Your task to perform on an android device: Add "acer predator" to the cart on target.com Image 0: 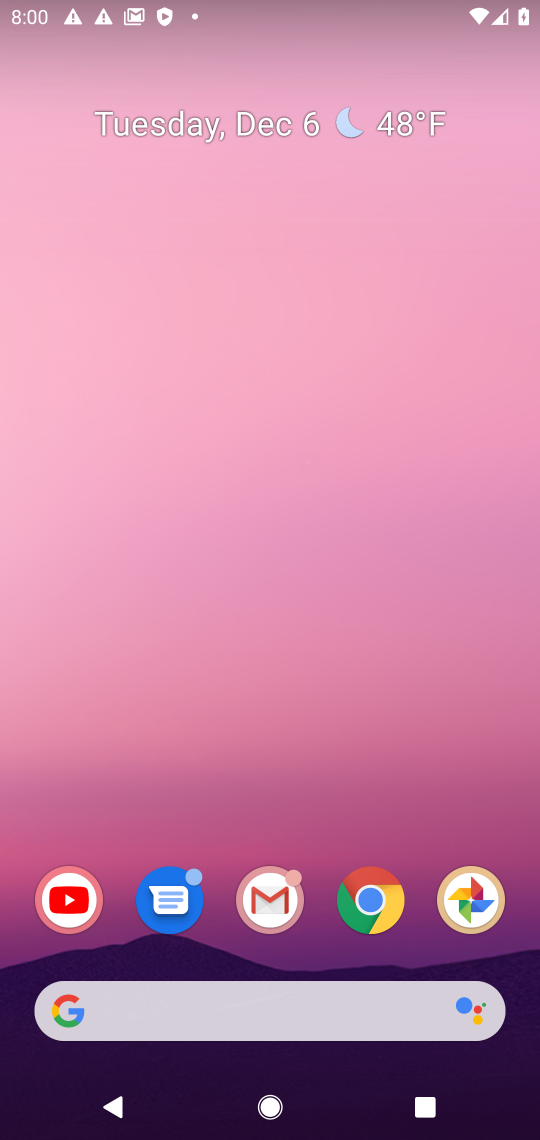
Step 0: click (292, 404)
Your task to perform on an android device: Add "acer predator" to the cart on target.com Image 1: 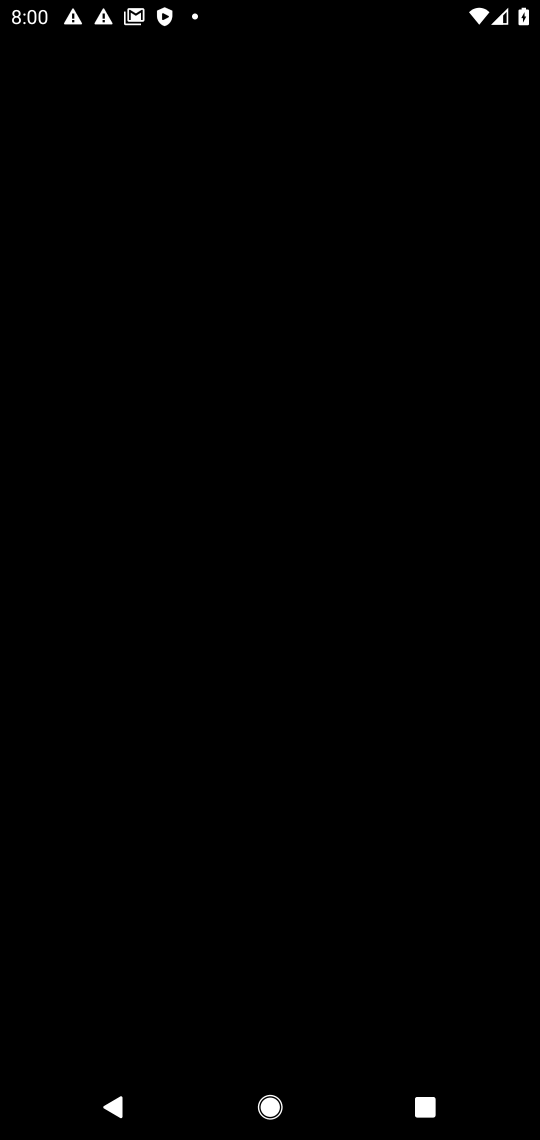
Step 1: press home button
Your task to perform on an android device: Add "acer predator" to the cart on target.com Image 2: 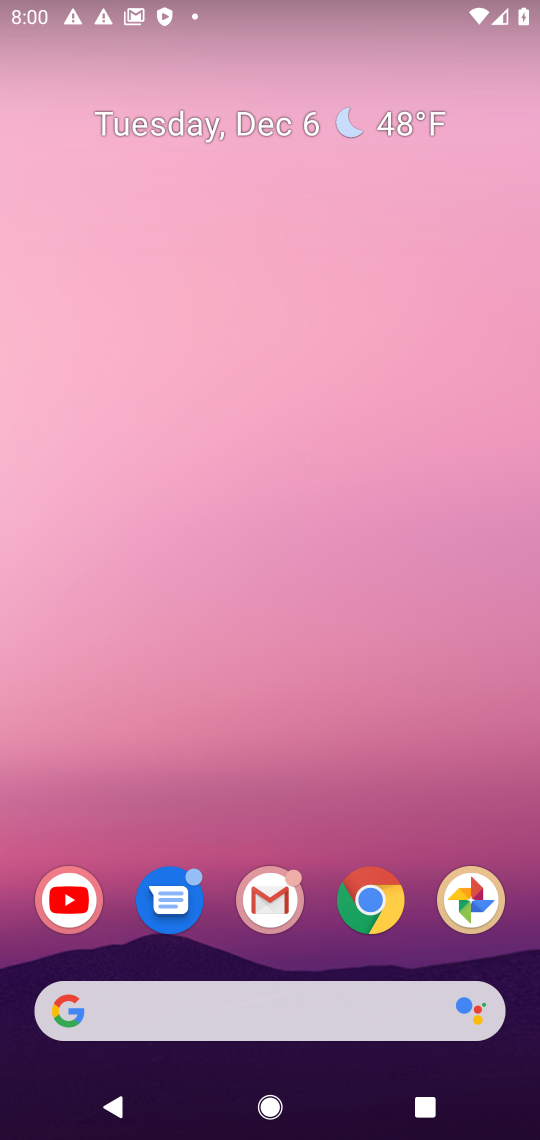
Step 2: drag from (310, 971) to (275, 417)
Your task to perform on an android device: Add "acer predator" to the cart on target.com Image 3: 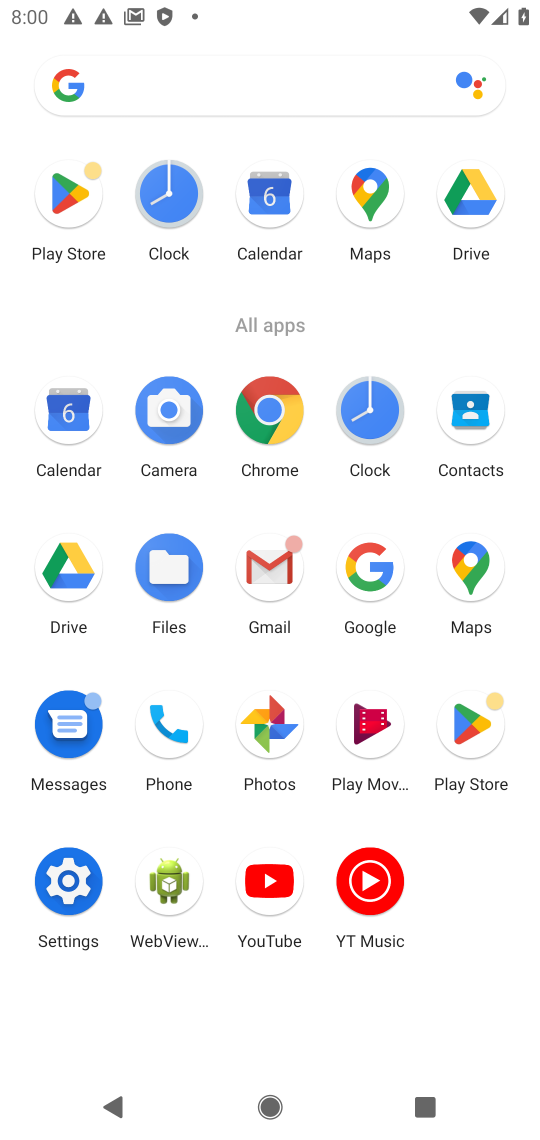
Step 3: click (360, 575)
Your task to perform on an android device: Add "acer predator" to the cart on target.com Image 4: 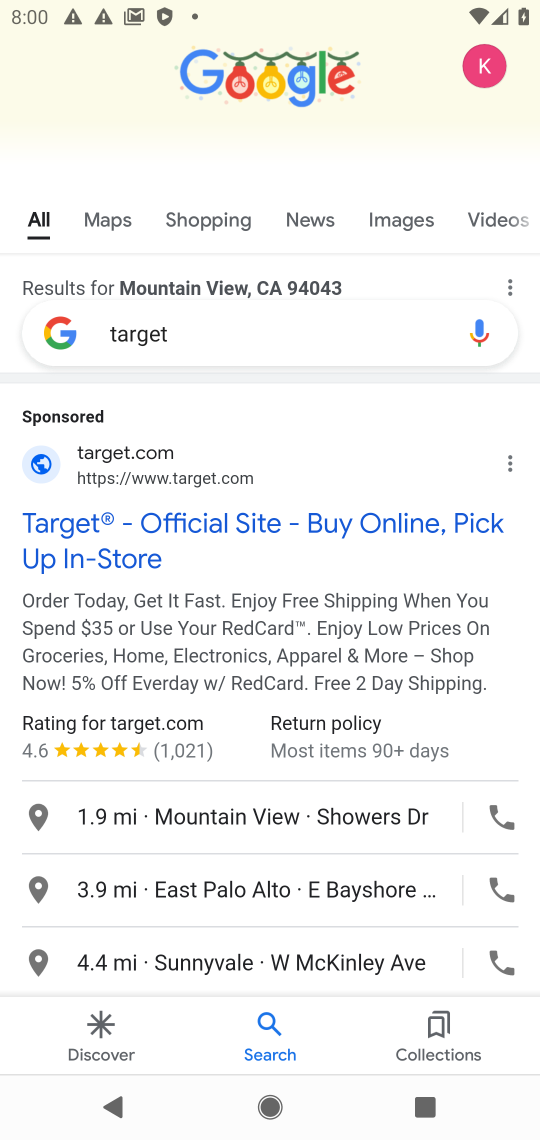
Step 4: click (153, 525)
Your task to perform on an android device: Add "acer predator" to the cart on target.com Image 5: 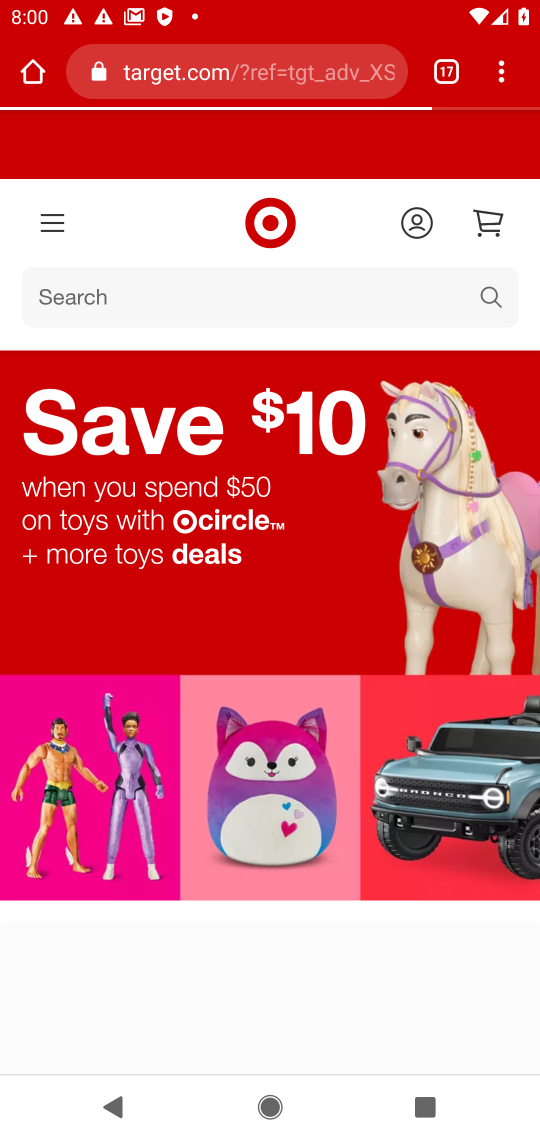
Step 5: click (137, 300)
Your task to perform on an android device: Add "acer predator" to the cart on target.com Image 6: 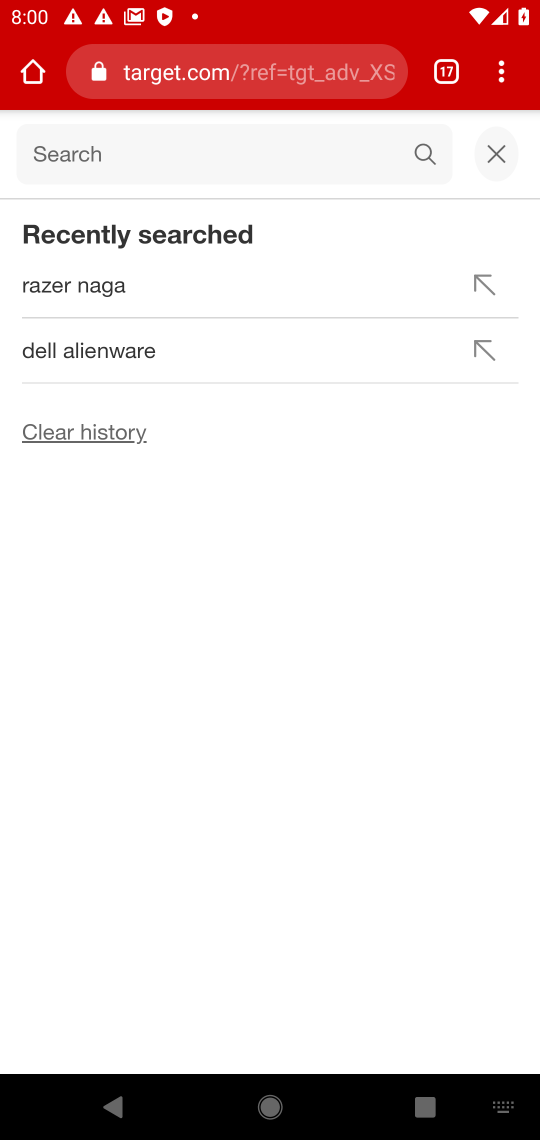
Step 6: type "acer predator"
Your task to perform on an android device: Add "acer predator" to the cart on target.com Image 7: 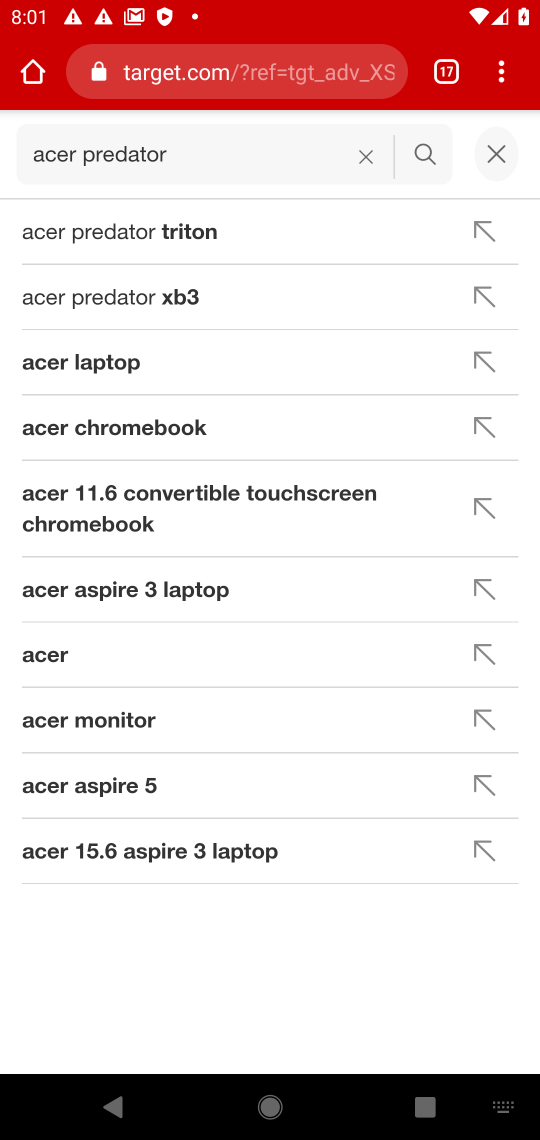
Step 7: click (117, 221)
Your task to perform on an android device: Add "acer predator" to the cart on target.com Image 8: 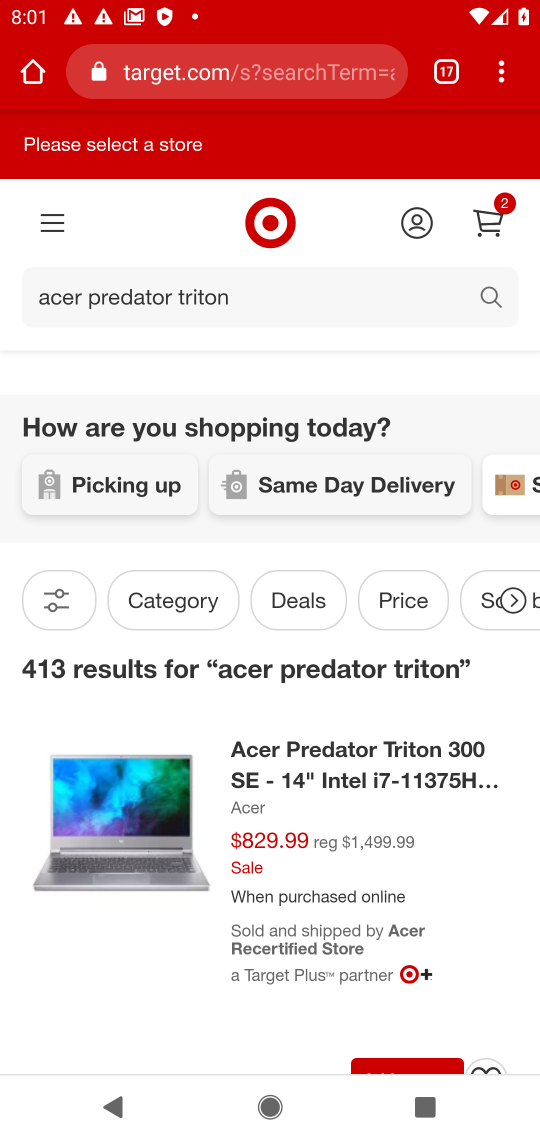
Step 8: drag from (282, 943) to (300, 339)
Your task to perform on an android device: Add "acer predator" to the cart on target.com Image 9: 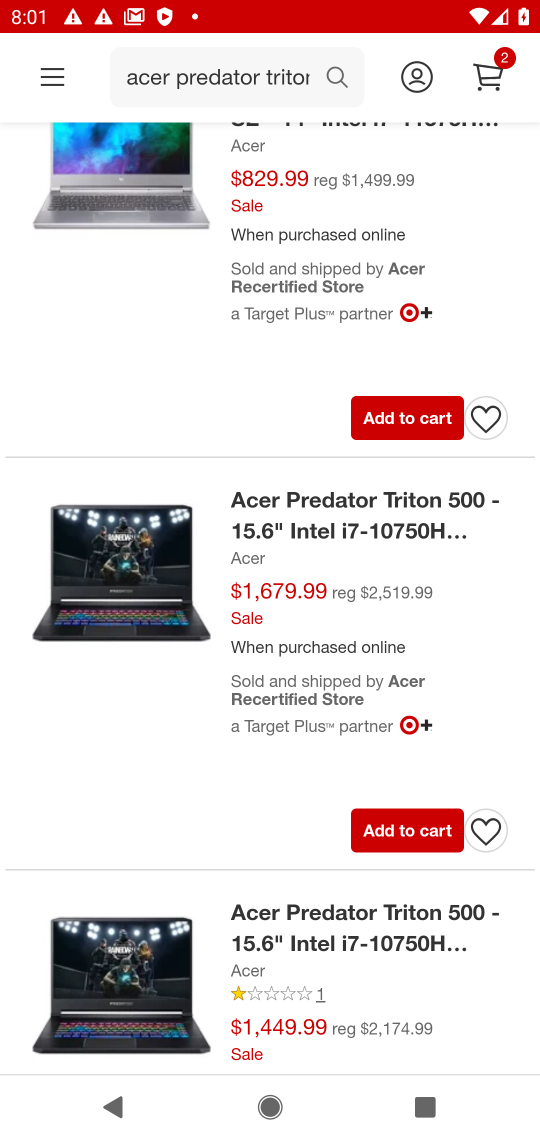
Step 9: click (405, 419)
Your task to perform on an android device: Add "acer predator" to the cart on target.com Image 10: 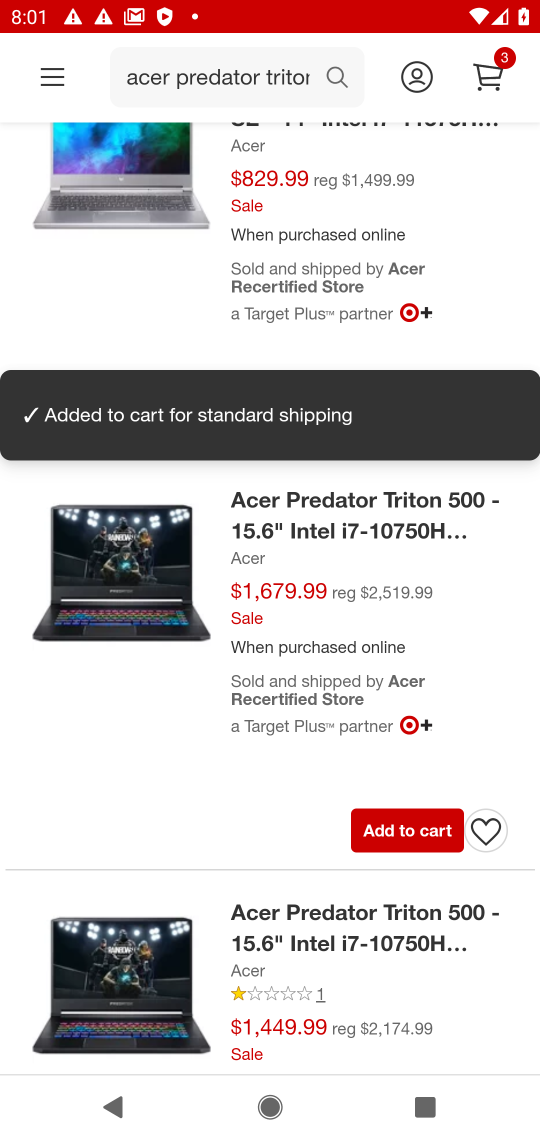
Step 10: task complete